Your task to perform on an android device: manage bookmarks in the chrome app Image 0: 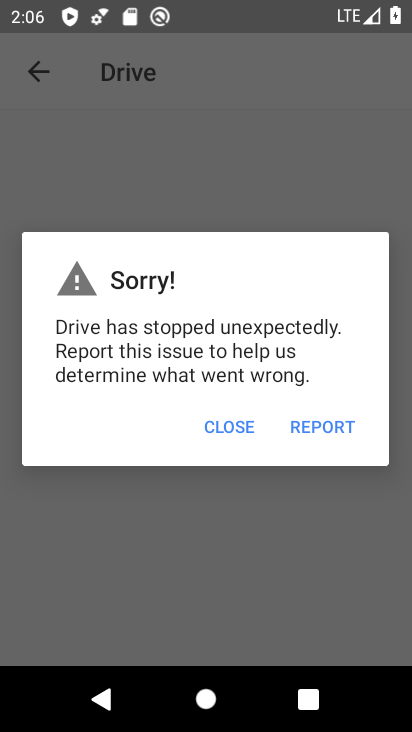
Step 0: press back button
Your task to perform on an android device: manage bookmarks in the chrome app Image 1: 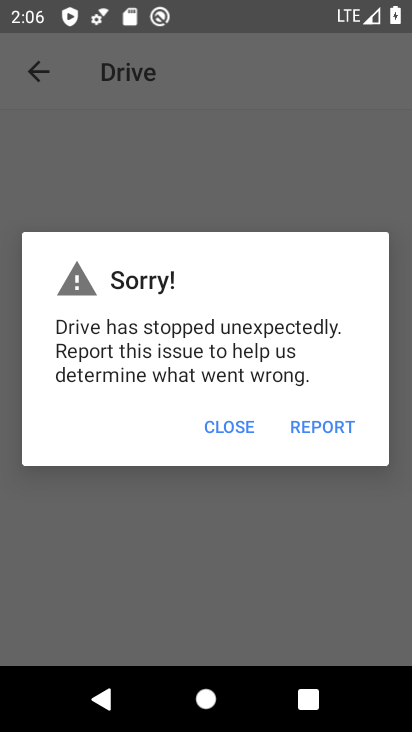
Step 1: press back button
Your task to perform on an android device: manage bookmarks in the chrome app Image 2: 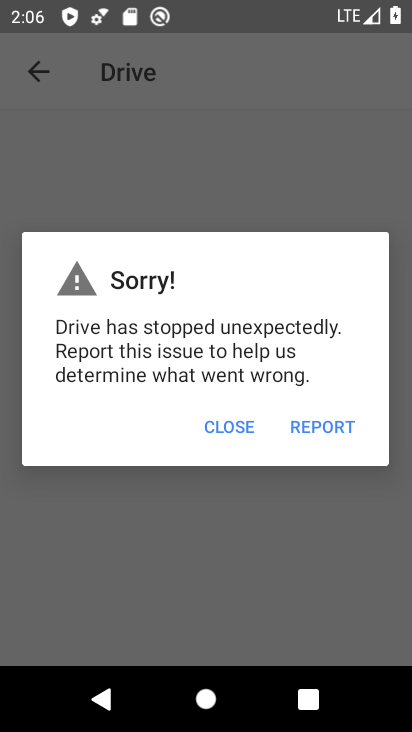
Step 2: press home button
Your task to perform on an android device: manage bookmarks in the chrome app Image 3: 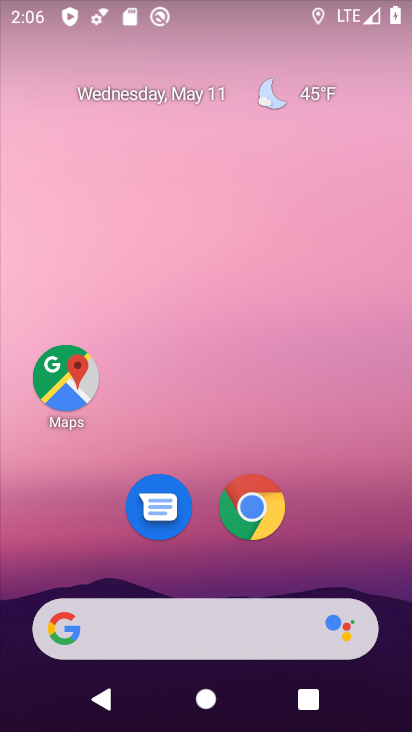
Step 3: drag from (356, 530) to (280, 14)
Your task to perform on an android device: manage bookmarks in the chrome app Image 4: 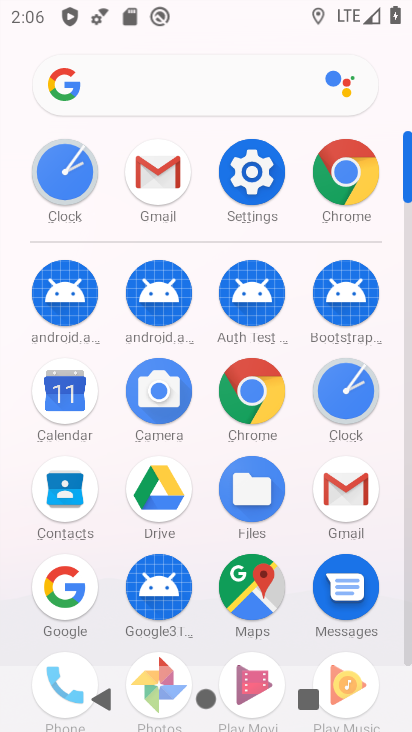
Step 4: click (251, 389)
Your task to perform on an android device: manage bookmarks in the chrome app Image 5: 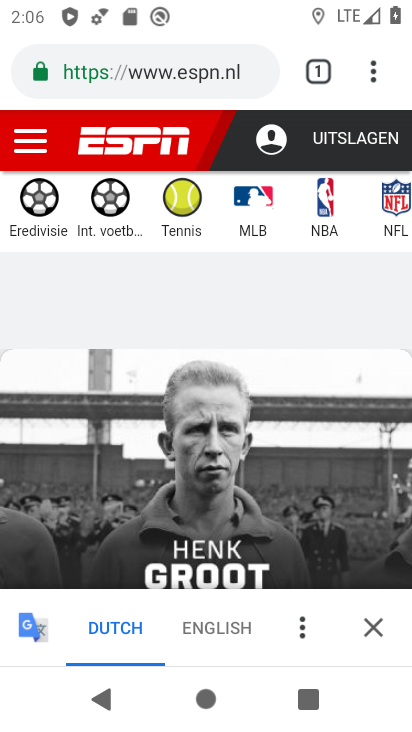
Step 5: task complete